Your task to perform on an android device: Show me recent news Image 0: 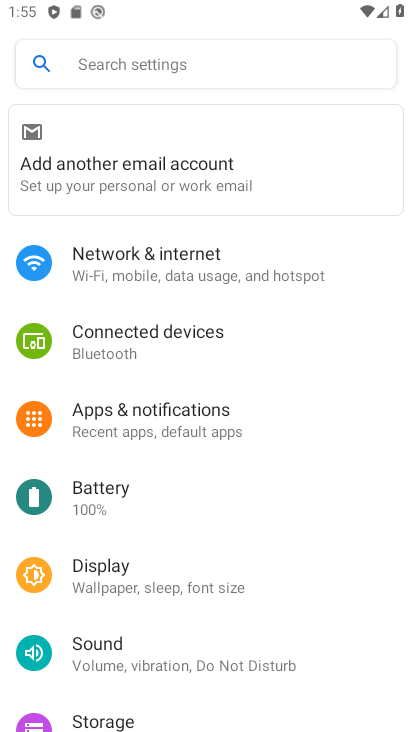
Step 0: press home button
Your task to perform on an android device: Show me recent news Image 1: 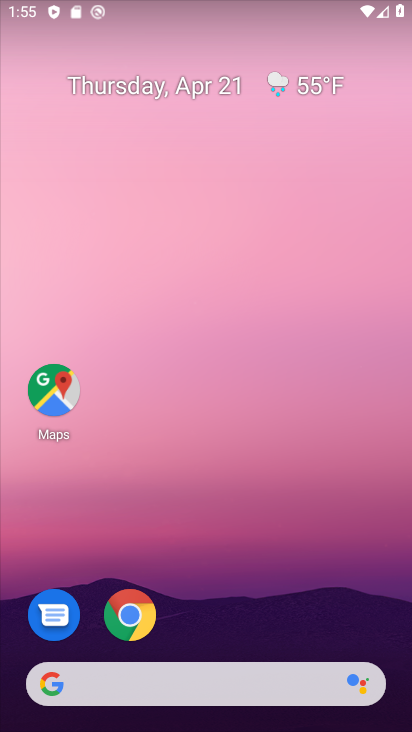
Step 1: drag from (189, 663) to (252, 273)
Your task to perform on an android device: Show me recent news Image 2: 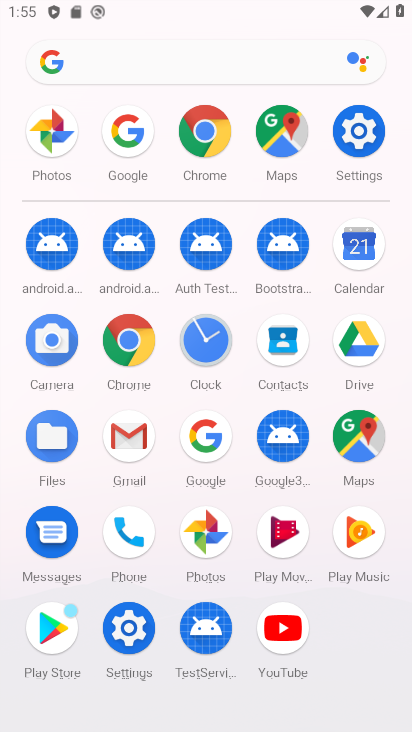
Step 2: click (218, 438)
Your task to perform on an android device: Show me recent news Image 3: 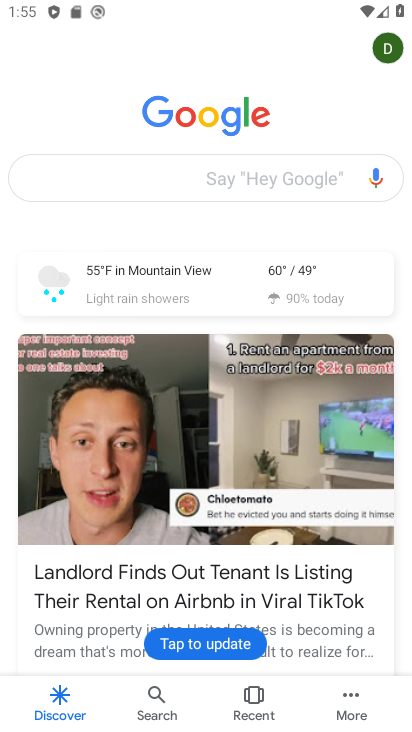
Step 3: click (204, 185)
Your task to perform on an android device: Show me recent news Image 4: 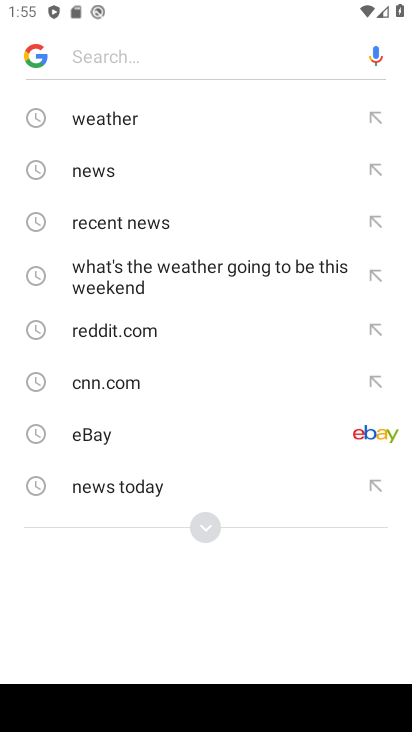
Step 4: click (142, 224)
Your task to perform on an android device: Show me recent news Image 5: 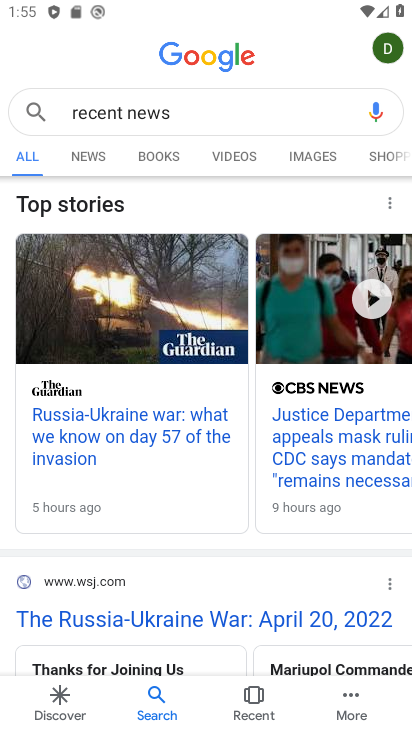
Step 5: click (111, 620)
Your task to perform on an android device: Show me recent news Image 6: 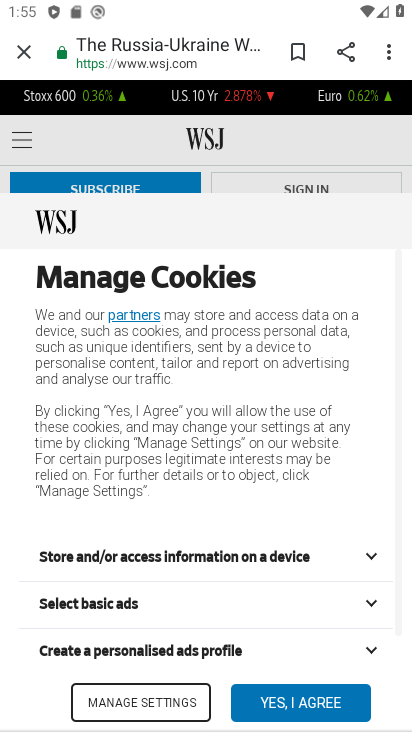
Step 6: task complete